Your task to perform on an android device: Check the weather Image 0: 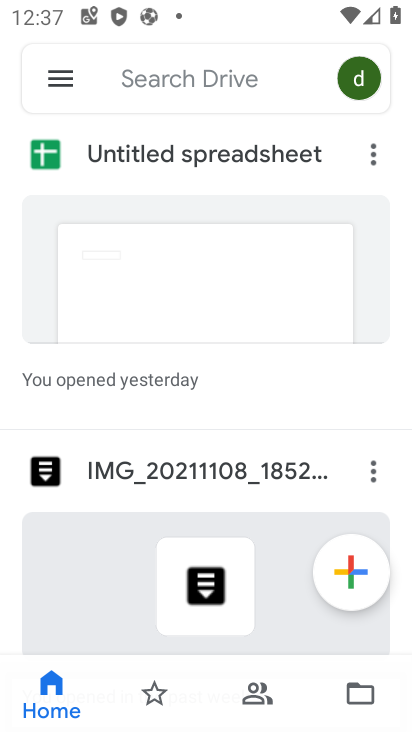
Step 0: press home button
Your task to perform on an android device: Check the weather Image 1: 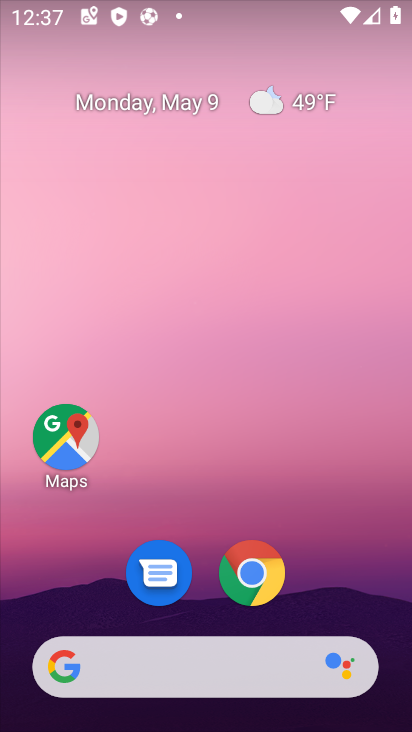
Step 1: click (180, 663)
Your task to perform on an android device: Check the weather Image 2: 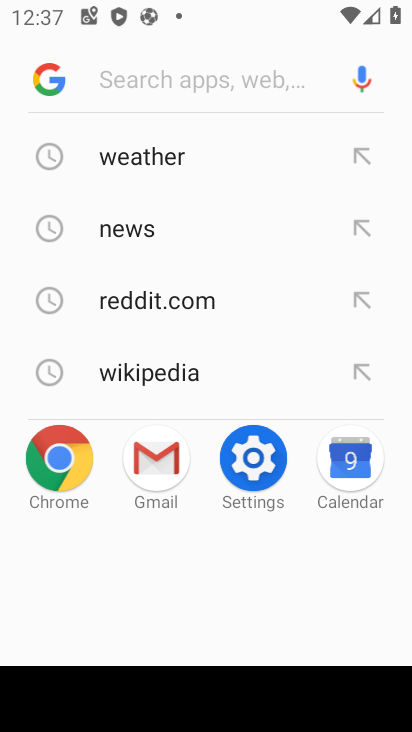
Step 2: click (151, 149)
Your task to perform on an android device: Check the weather Image 3: 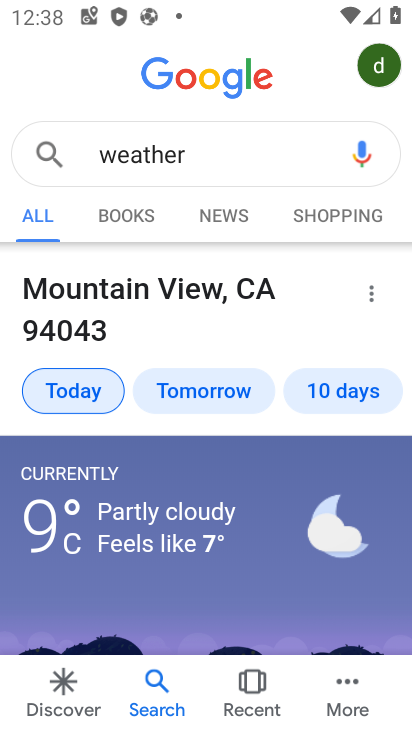
Step 3: task complete